Your task to perform on an android device: Open CNN.com Image 0: 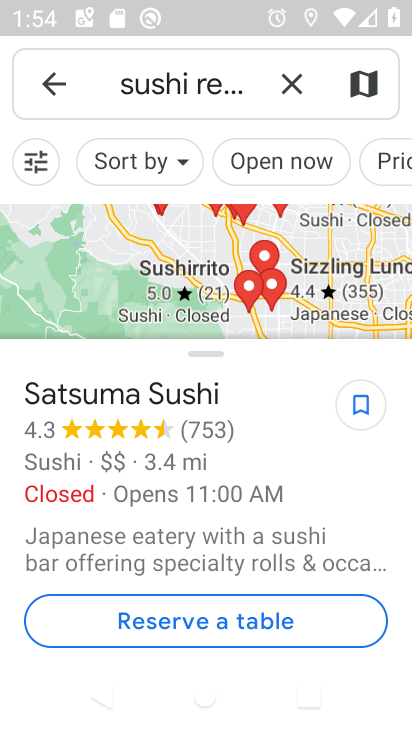
Step 0: press home button
Your task to perform on an android device: Open CNN.com Image 1: 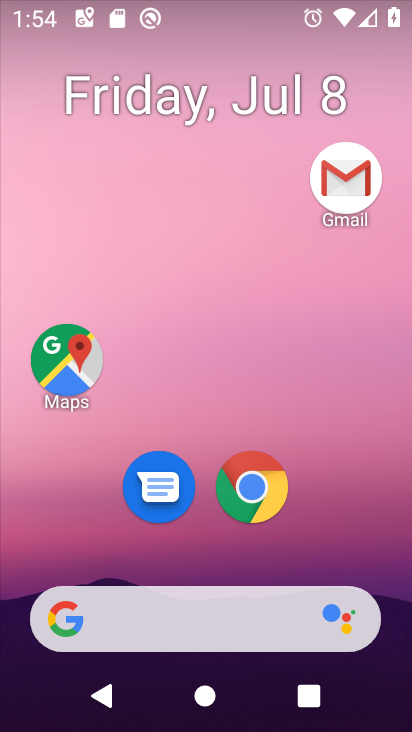
Step 1: drag from (359, 541) to (389, 192)
Your task to perform on an android device: Open CNN.com Image 2: 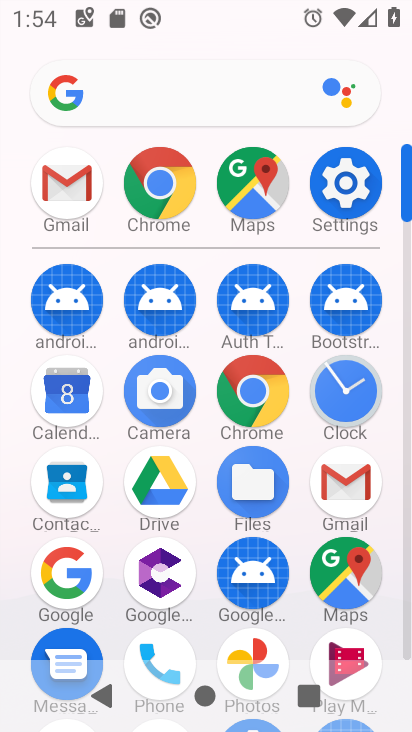
Step 2: click (263, 389)
Your task to perform on an android device: Open CNN.com Image 3: 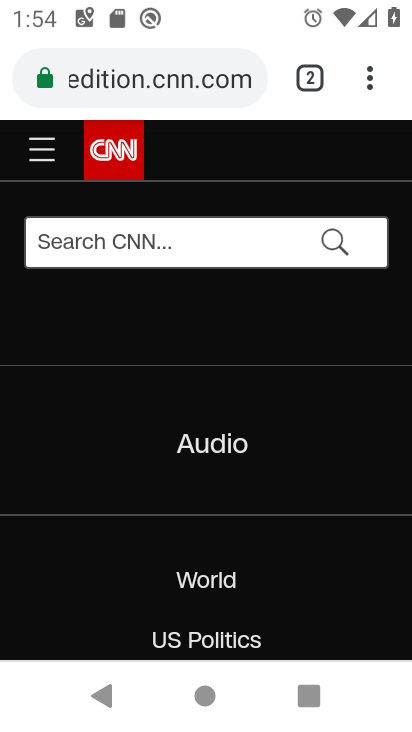
Step 3: task complete